Your task to perform on an android device: toggle show notifications on the lock screen Image 0: 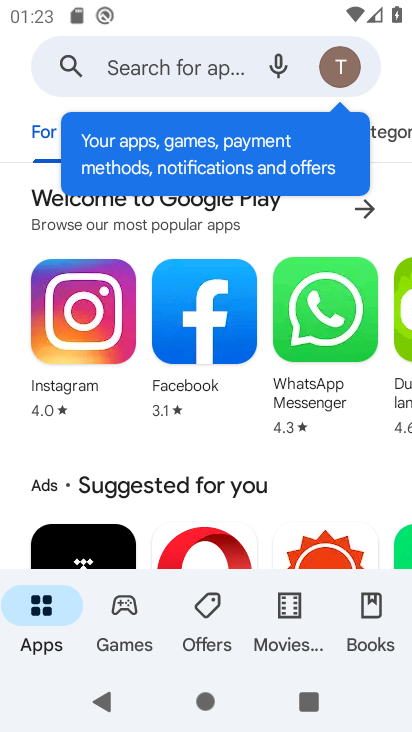
Step 0: press home button
Your task to perform on an android device: toggle show notifications on the lock screen Image 1: 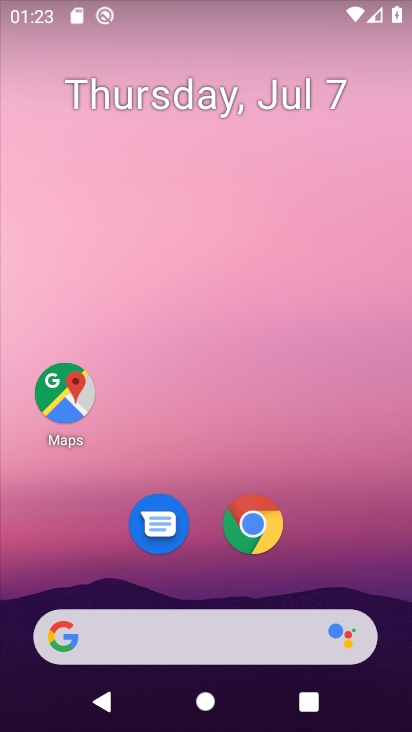
Step 1: drag from (306, 572) to (277, 81)
Your task to perform on an android device: toggle show notifications on the lock screen Image 2: 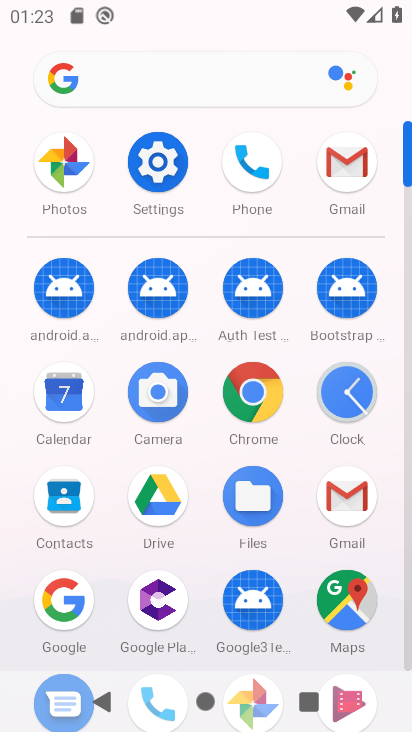
Step 2: click (162, 171)
Your task to perform on an android device: toggle show notifications on the lock screen Image 3: 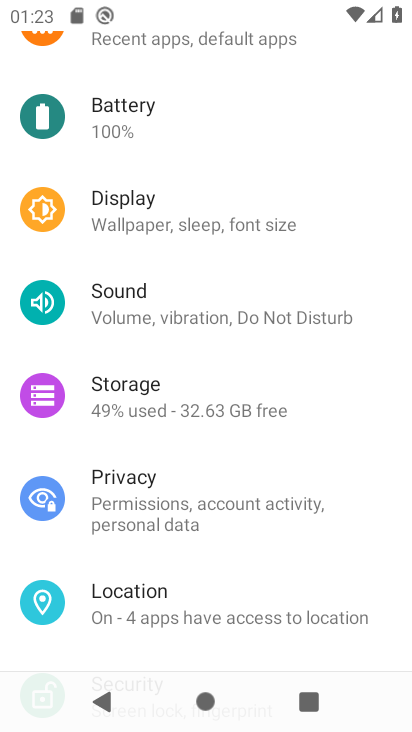
Step 3: drag from (185, 173) to (229, 450)
Your task to perform on an android device: toggle show notifications on the lock screen Image 4: 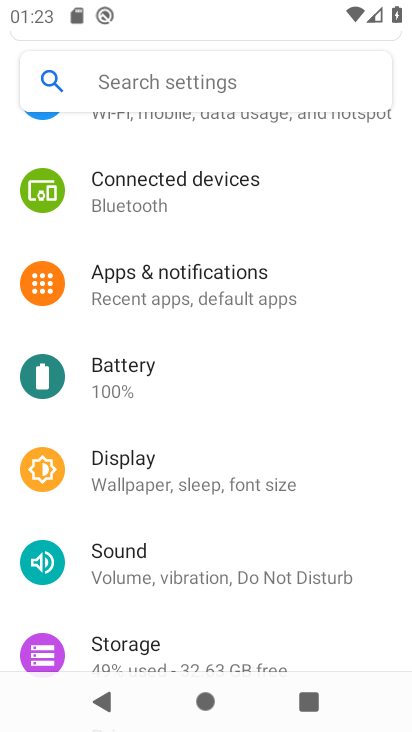
Step 4: drag from (208, 226) to (233, 487)
Your task to perform on an android device: toggle show notifications on the lock screen Image 5: 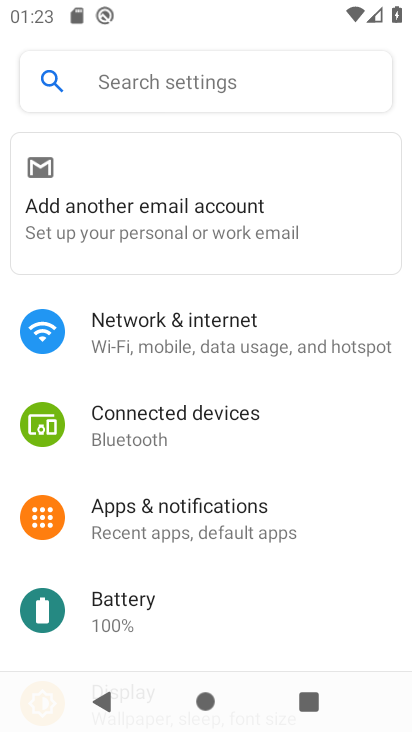
Step 5: drag from (234, 479) to (227, 299)
Your task to perform on an android device: toggle show notifications on the lock screen Image 6: 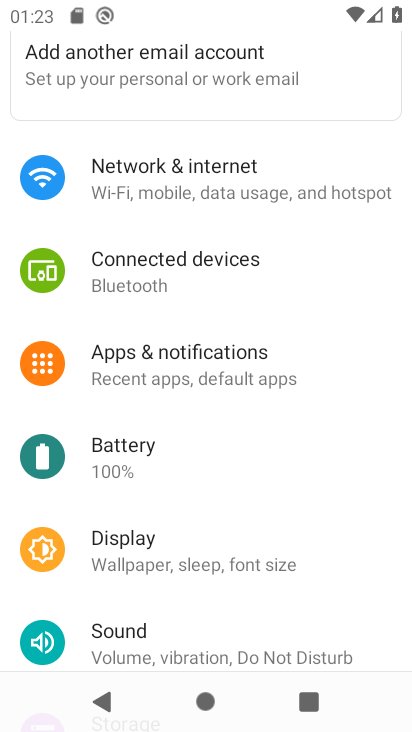
Step 6: click (206, 363)
Your task to perform on an android device: toggle show notifications on the lock screen Image 7: 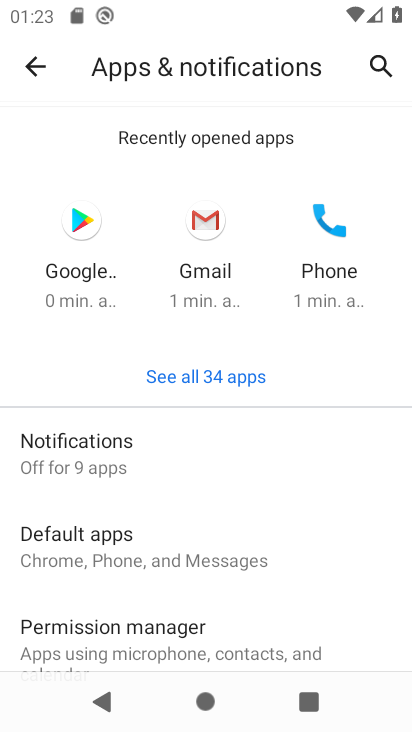
Step 7: click (117, 453)
Your task to perform on an android device: toggle show notifications on the lock screen Image 8: 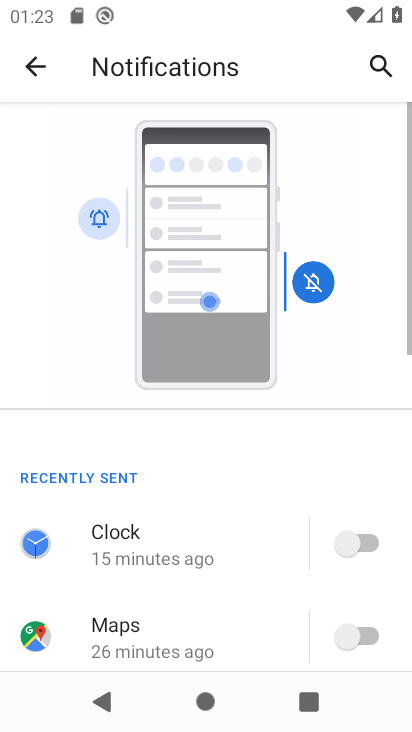
Step 8: drag from (197, 596) to (157, 291)
Your task to perform on an android device: toggle show notifications on the lock screen Image 9: 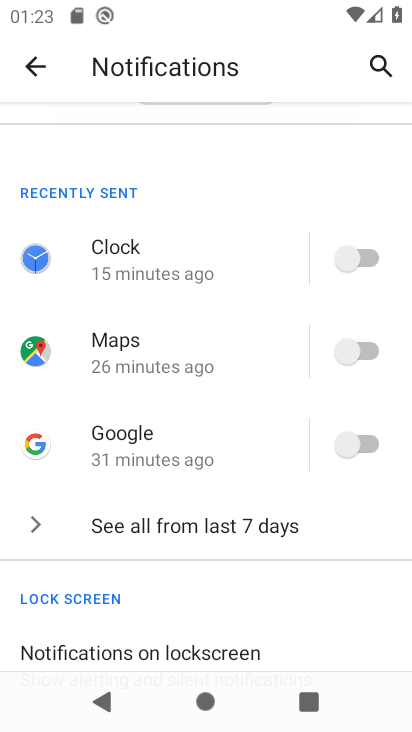
Step 9: drag from (187, 601) to (190, 369)
Your task to perform on an android device: toggle show notifications on the lock screen Image 10: 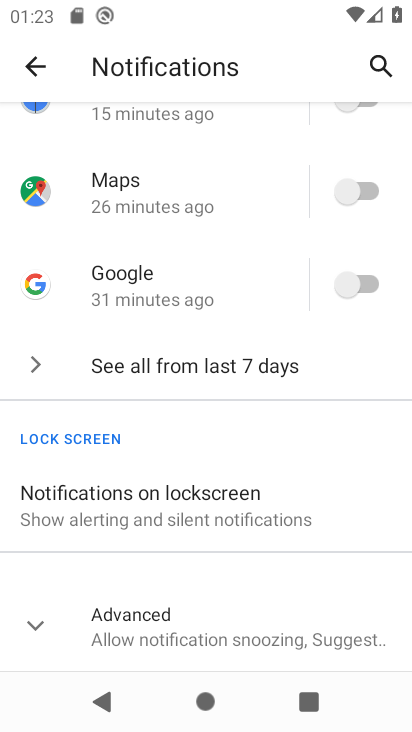
Step 10: click (213, 503)
Your task to perform on an android device: toggle show notifications on the lock screen Image 11: 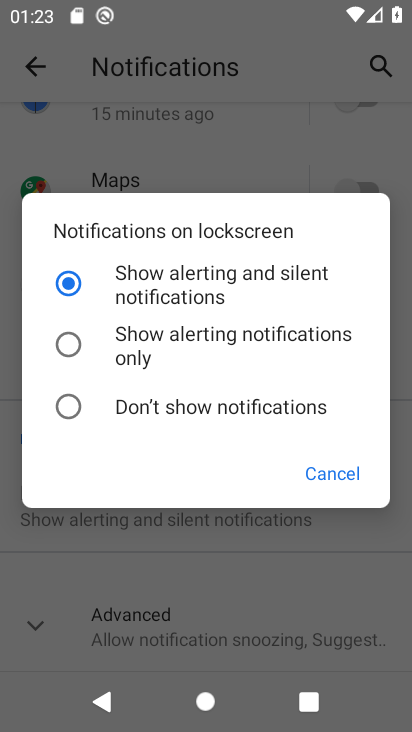
Step 11: click (64, 402)
Your task to perform on an android device: toggle show notifications on the lock screen Image 12: 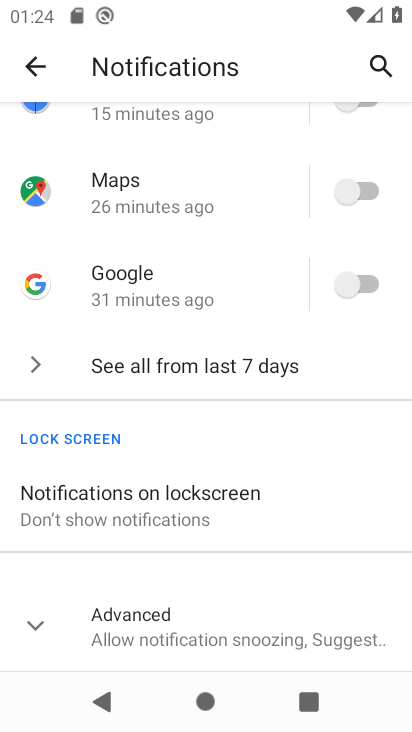
Step 12: task complete